Your task to perform on an android device: Open battery settings Image 0: 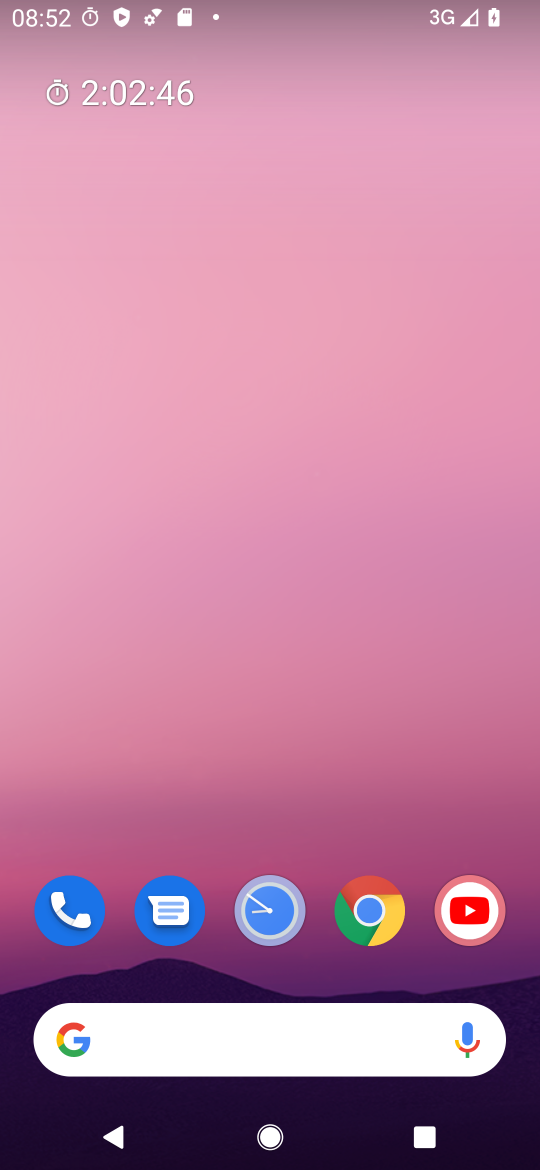
Step 0: drag from (223, 1046) to (236, 47)
Your task to perform on an android device: Open battery settings Image 1: 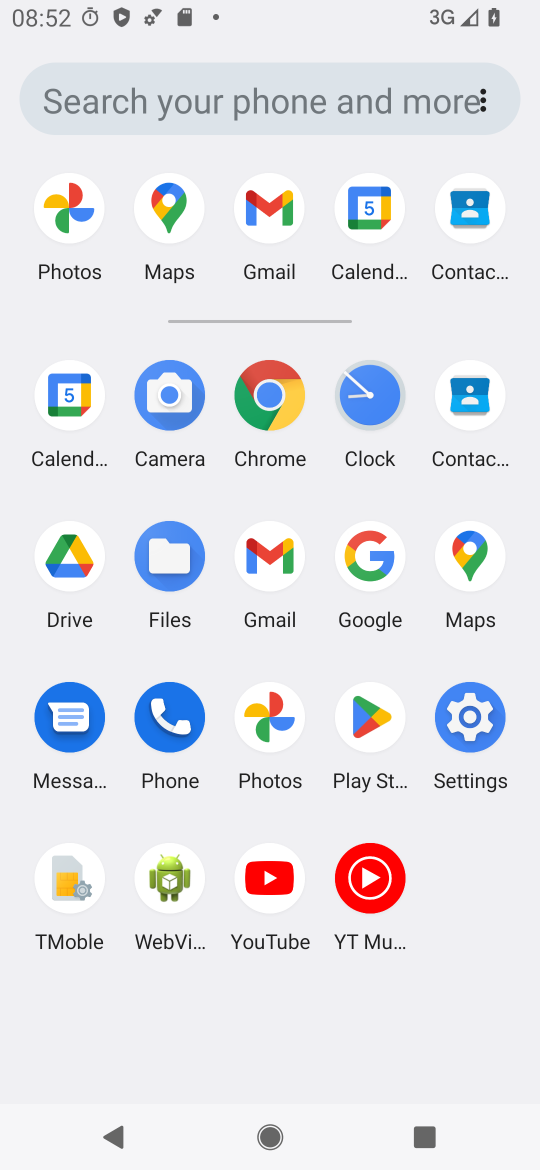
Step 1: click (483, 736)
Your task to perform on an android device: Open battery settings Image 2: 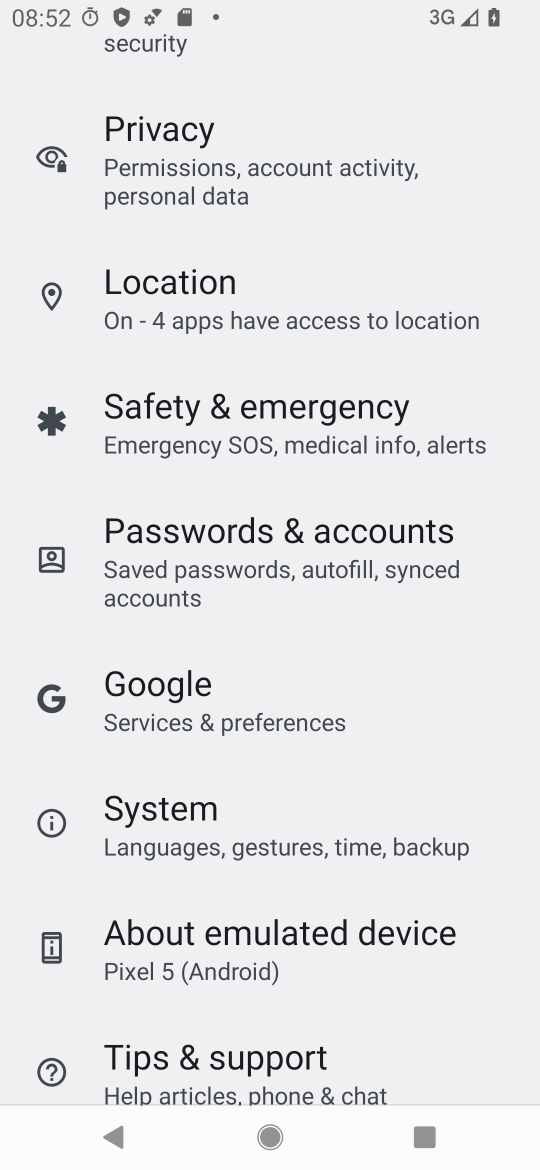
Step 2: drag from (381, 256) to (236, 1070)
Your task to perform on an android device: Open battery settings Image 3: 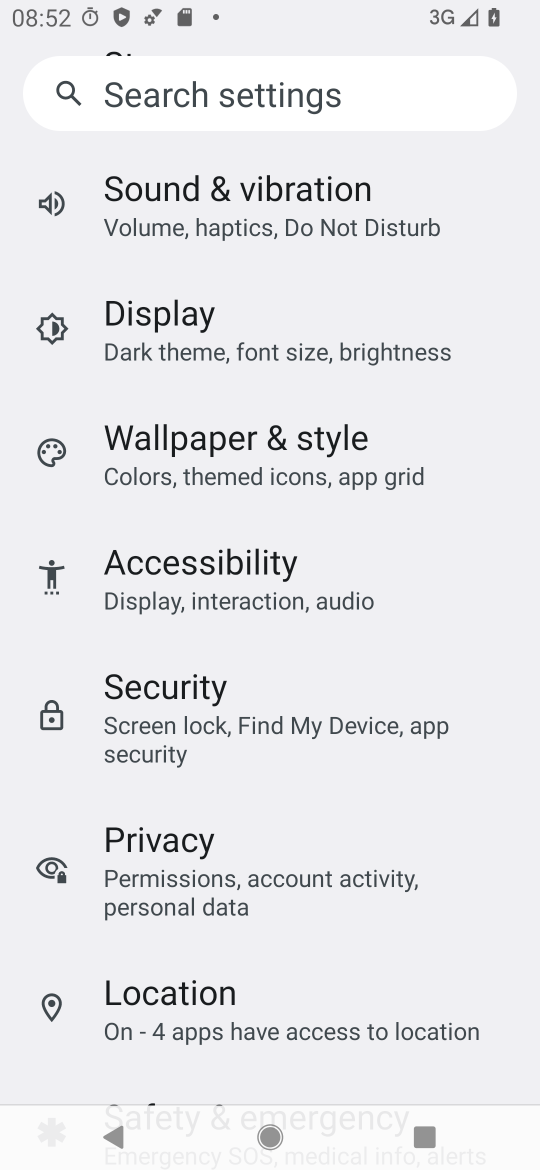
Step 3: drag from (468, 296) to (66, 591)
Your task to perform on an android device: Open battery settings Image 4: 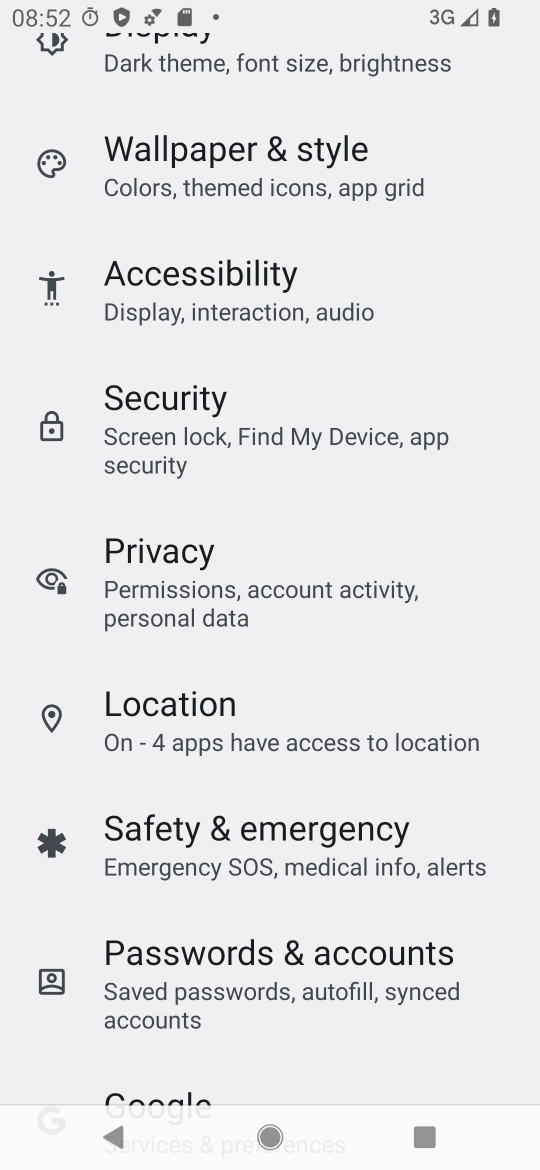
Step 4: drag from (498, 263) to (401, 816)
Your task to perform on an android device: Open battery settings Image 5: 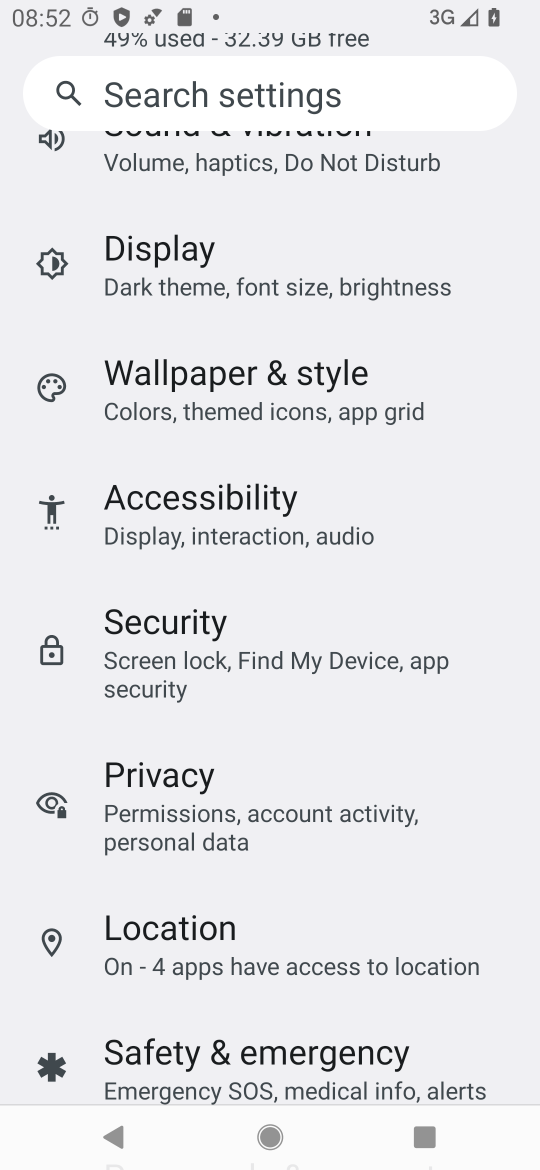
Step 5: drag from (493, 359) to (111, 1150)
Your task to perform on an android device: Open battery settings Image 6: 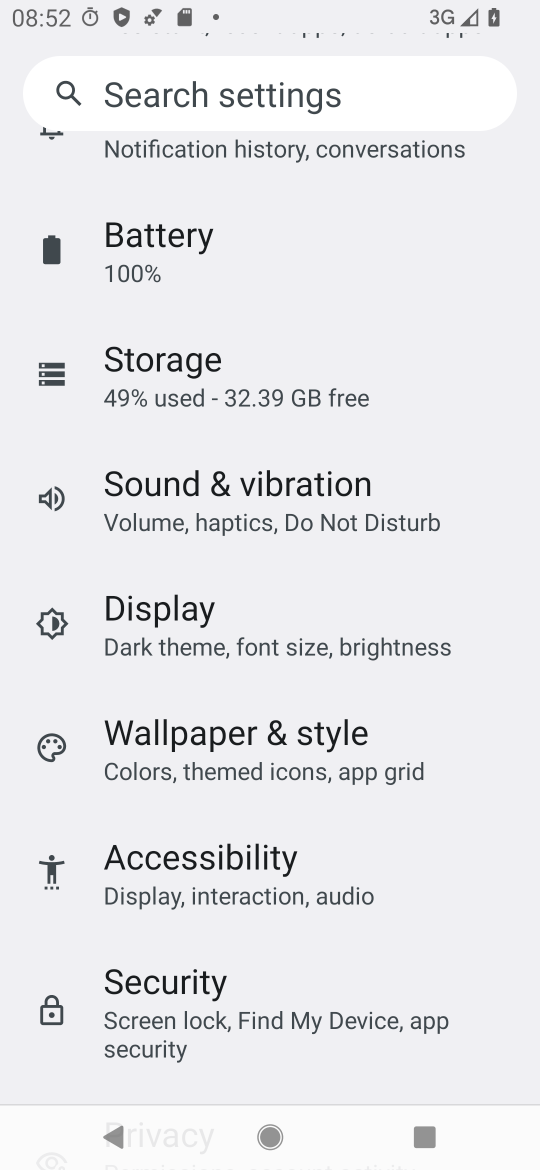
Step 6: click (196, 236)
Your task to perform on an android device: Open battery settings Image 7: 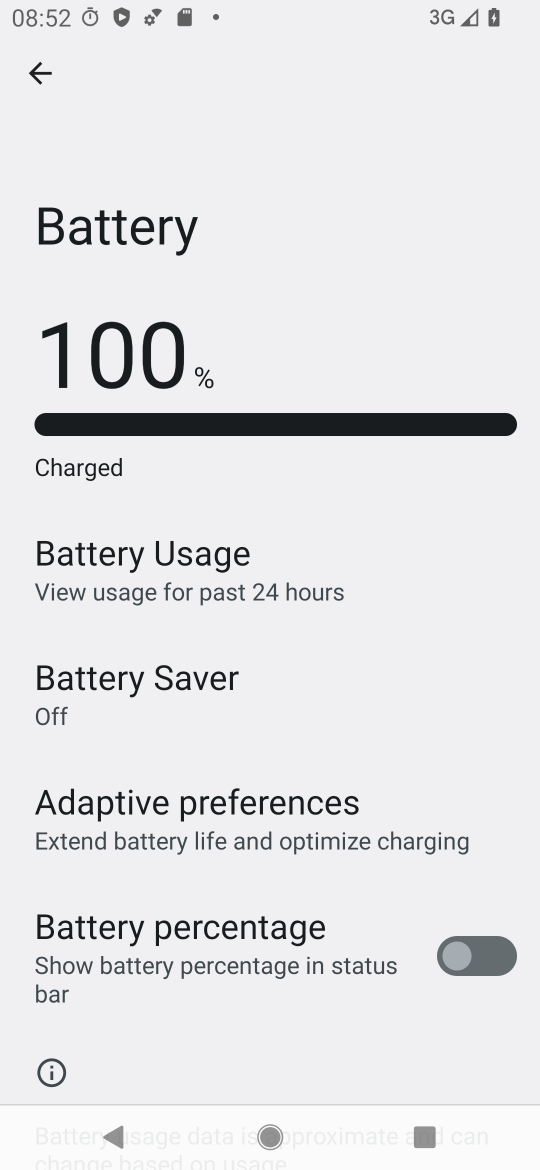
Step 7: task complete